Your task to perform on an android device: star an email in the gmail app Image 0: 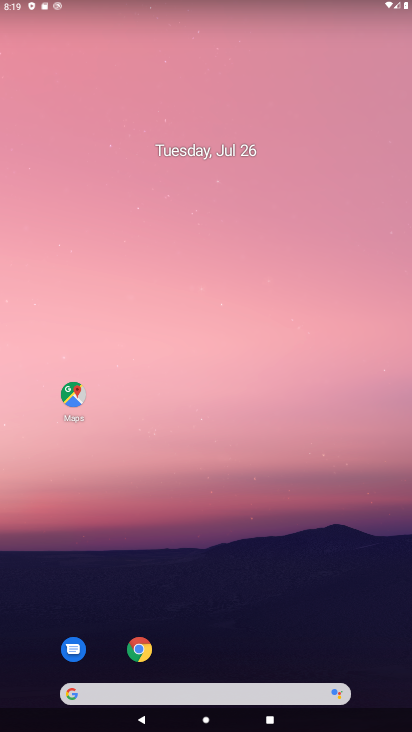
Step 0: drag from (218, 353) to (272, 100)
Your task to perform on an android device: star an email in the gmail app Image 1: 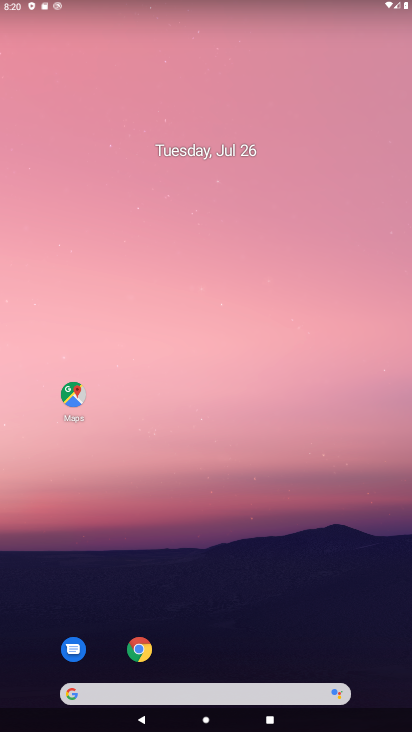
Step 1: drag from (186, 671) to (292, 136)
Your task to perform on an android device: star an email in the gmail app Image 2: 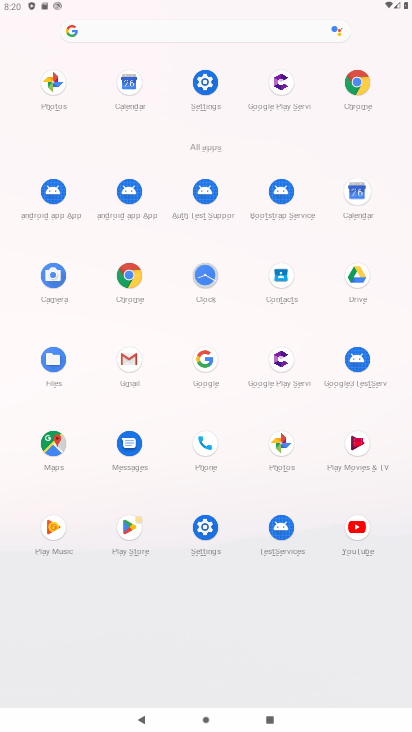
Step 2: click (124, 359)
Your task to perform on an android device: star an email in the gmail app Image 3: 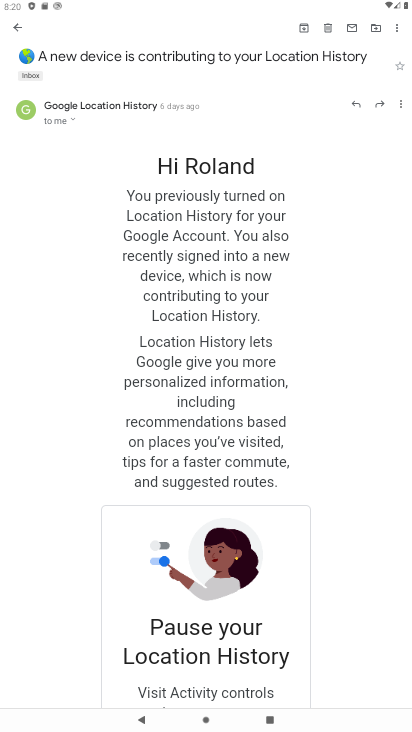
Step 3: drag from (189, 505) to (199, 167)
Your task to perform on an android device: star an email in the gmail app Image 4: 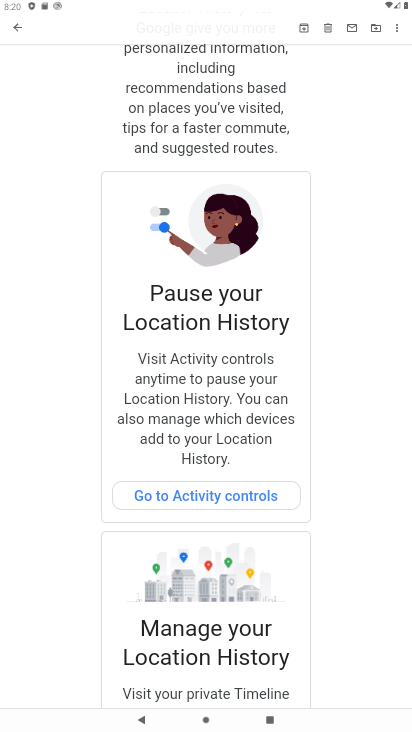
Step 4: drag from (180, 113) to (248, 715)
Your task to perform on an android device: star an email in the gmail app Image 5: 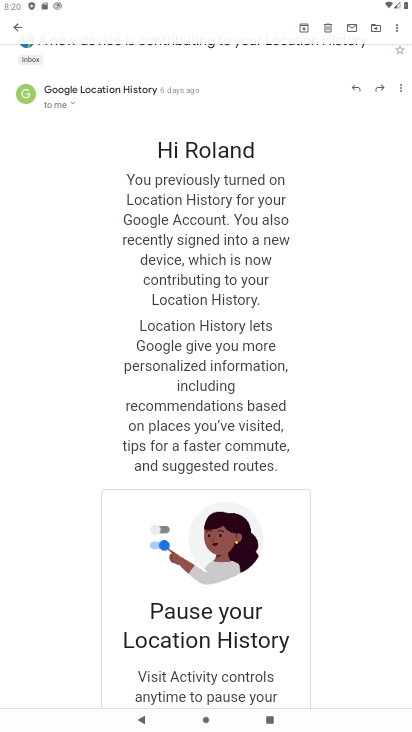
Step 5: click (396, 50)
Your task to perform on an android device: star an email in the gmail app Image 6: 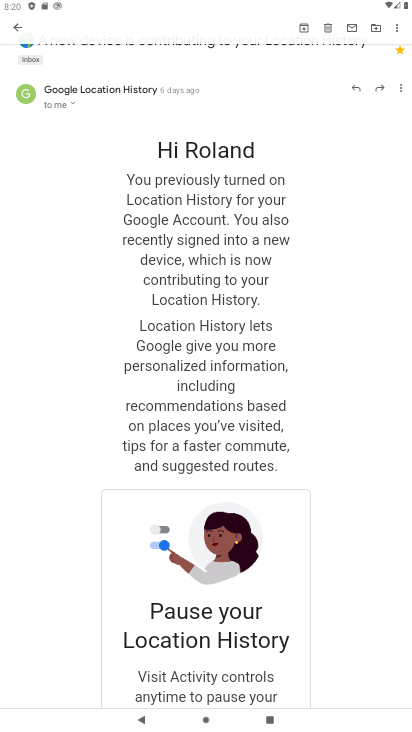
Step 6: task complete